Your task to perform on an android device: Go to Reddit.com Image 0: 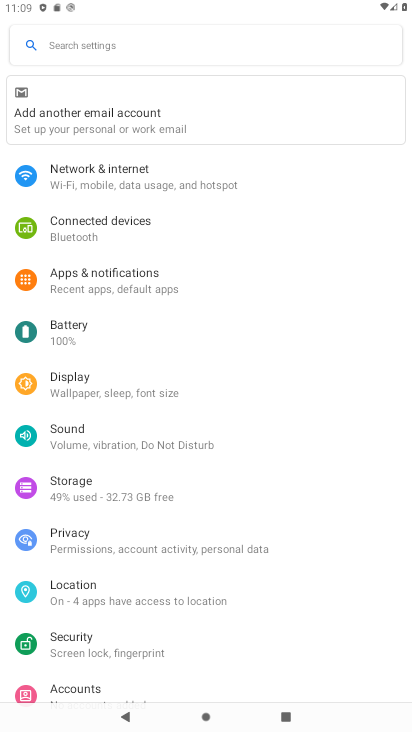
Step 0: press home button
Your task to perform on an android device: Go to Reddit.com Image 1: 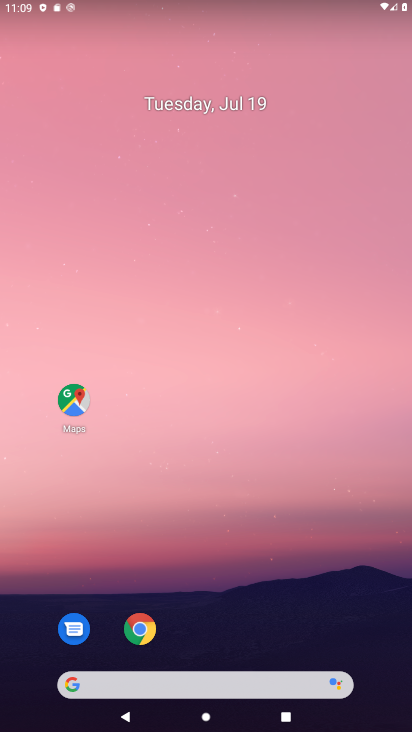
Step 1: drag from (343, 635) to (358, 114)
Your task to perform on an android device: Go to Reddit.com Image 2: 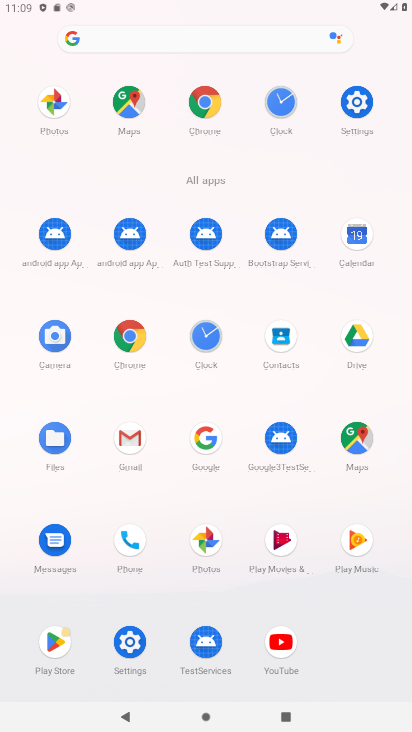
Step 2: click (126, 335)
Your task to perform on an android device: Go to Reddit.com Image 3: 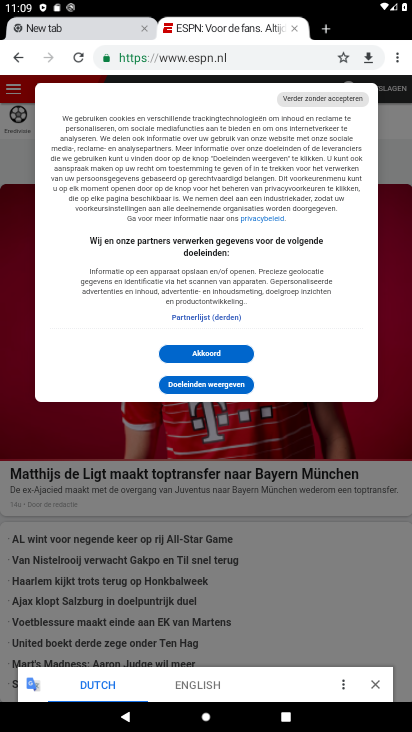
Step 3: click (216, 54)
Your task to perform on an android device: Go to Reddit.com Image 4: 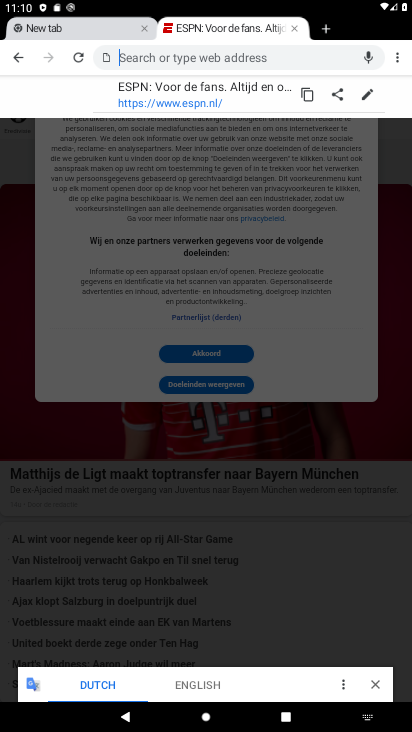
Step 4: type "reddit.com"
Your task to perform on an android device: Go to Reddit.com Image 5: 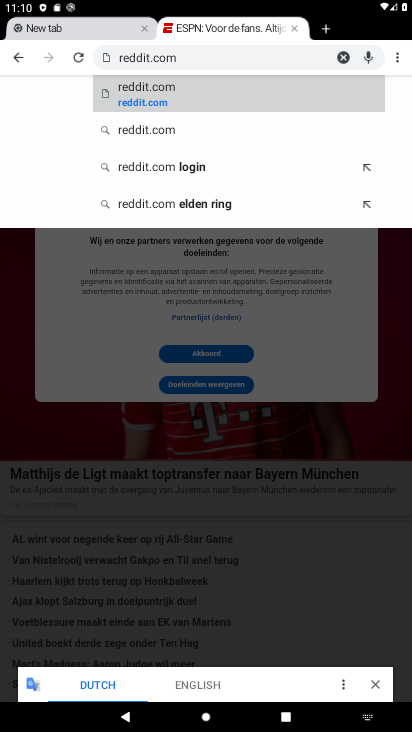
Step 5: click (166, 89)
Your task to perform on an android device: Go to Reddit.com Image 6: 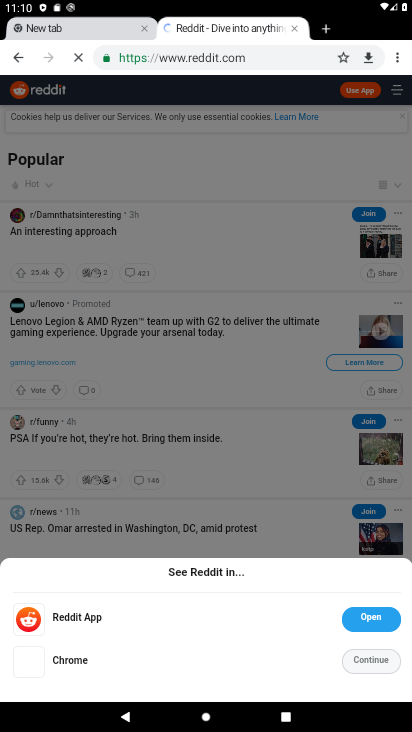
Step 6: task complete